Your task to perform on an android device: delete the emails in spam in the gmail app Image 0: 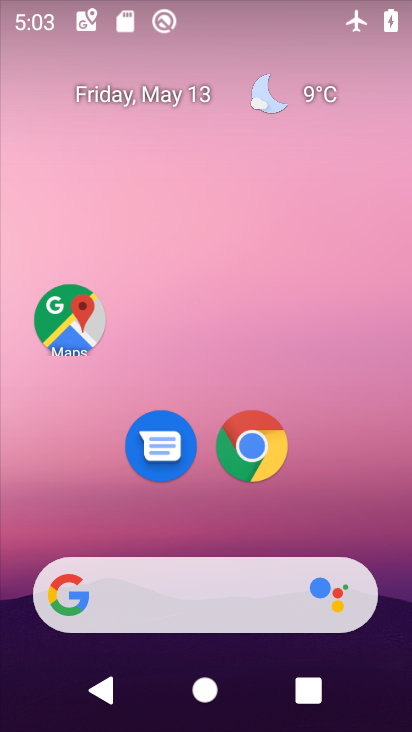
Step 0: drag from (224, 516) to (217, 55)
Your task to perform on an android device: delete the emails in spam in the gmail app Image 1: 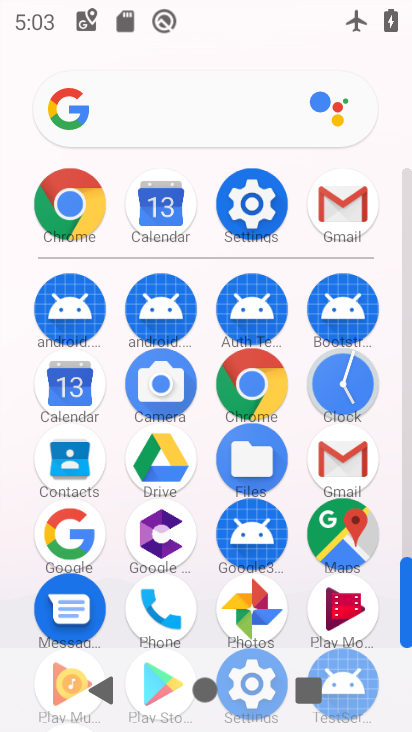
Step 1: click (331, 460)
Your task to perform on an android device: delete the emails in spam in the gmail app Image 2: 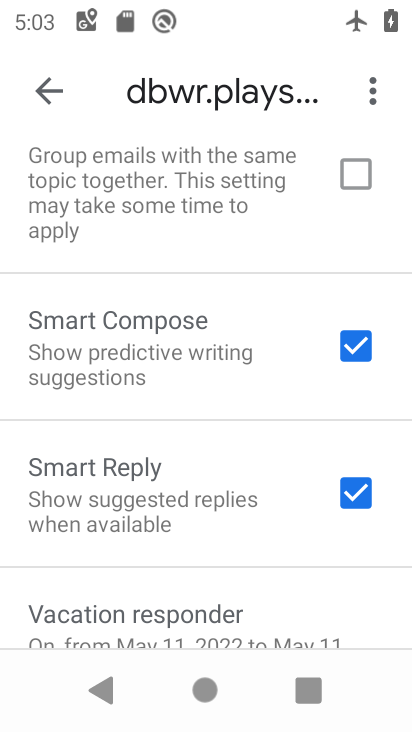
Step 2: click (47, 93)
Your task to perform on an android device: delete the emails in spam in the gmail app Image 3: 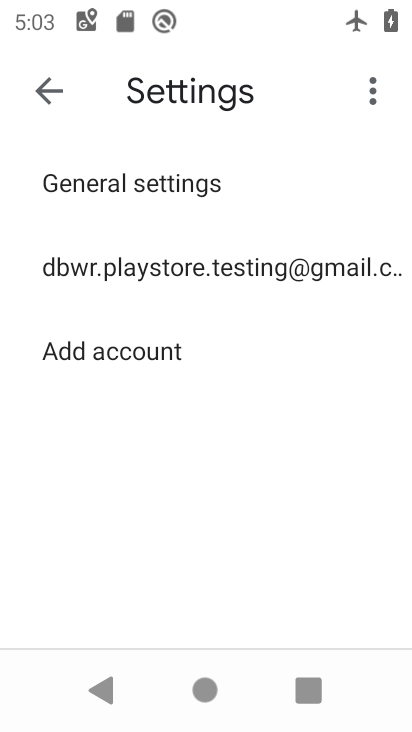
Step 3: click (47, 93)
Your task to perform on an android device: delete the emails in spam in the gmail app Image 4: 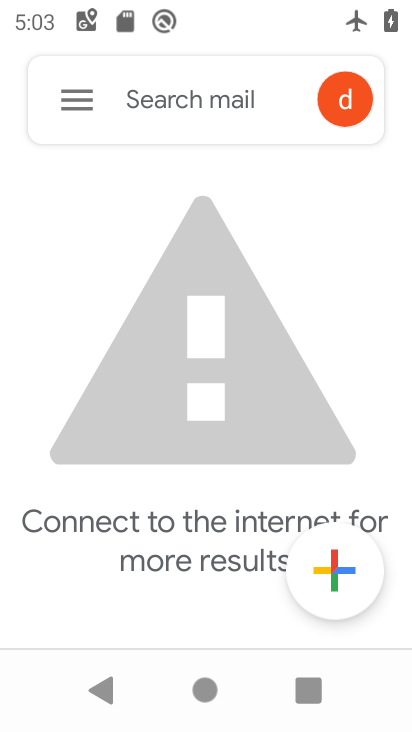
Step 4: click (47, 93)
Your task to perform on an android device: delete the emails in spam in the gmail app Image 5: 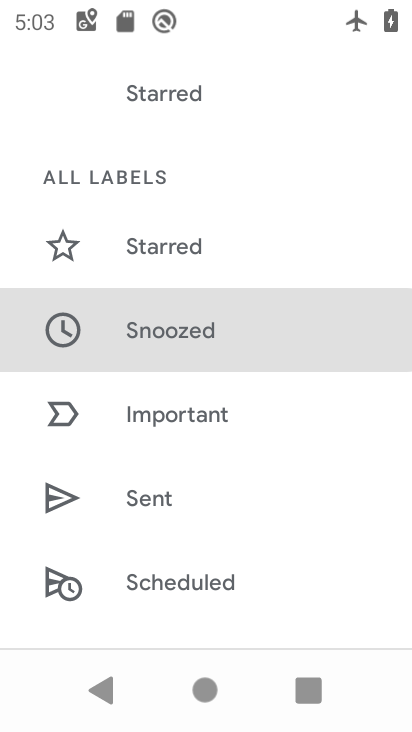
Step 5: click (148, 245)
Your task to perform on an android device: delete the emails in spam in the gmail app Image 6: 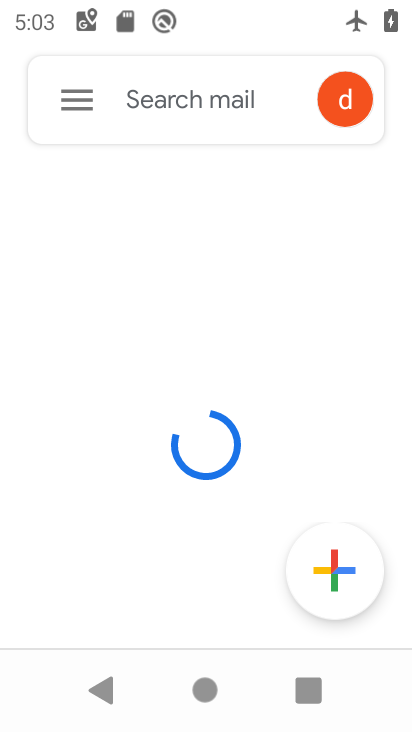
Step 6: drag from (113, 2) to (186, 418)
Your task to perform on an android device: delete the emails in spam in the gmail app Image 7: 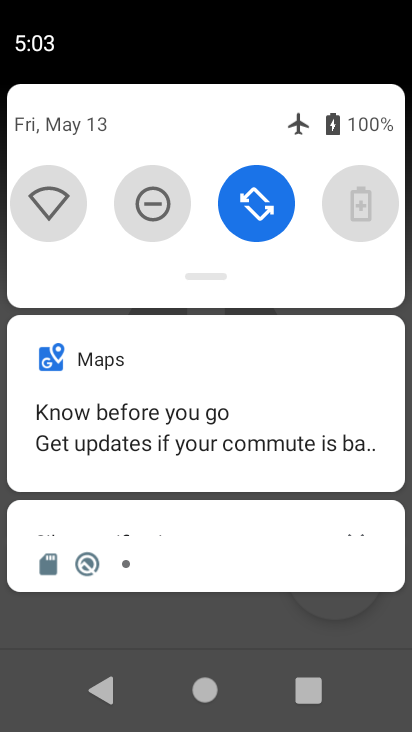
Step 7: click (59, 187)
Your task to perform on an android device: delete the emails in spam in the gmail app Image 8: 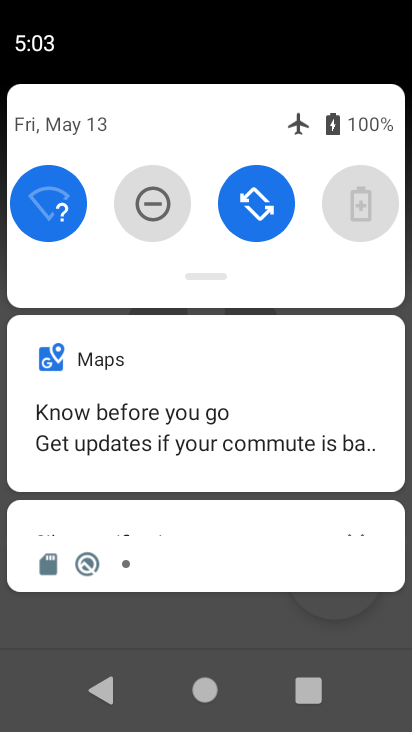
Step 8: drag from (163, 633) to (158, 258)
Your task to perform on an android device: delete the emails in spam in the gmail app Image 9: 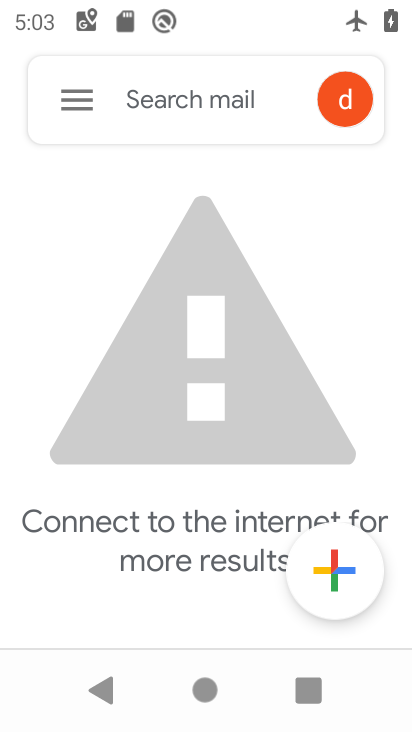
Step 9: click (63, 93)
Your task to perform on an android device: delete the emails in spam in the gmail app Image 10: 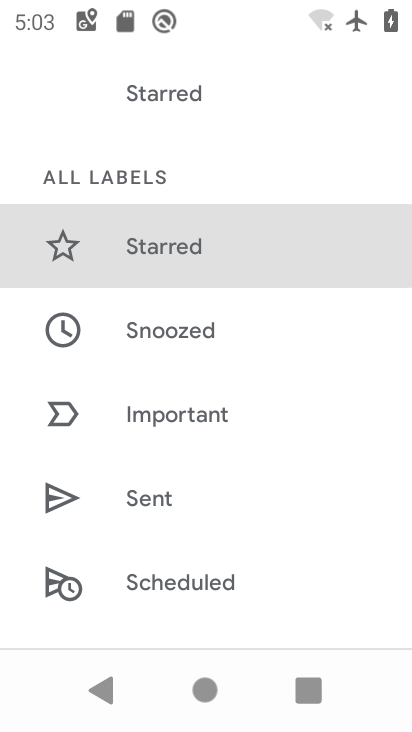
Step 10: drag from (171, 541) to (186, 193)
Your task to perform on an android device: delete the emails in spam in the gmail app Image 11: 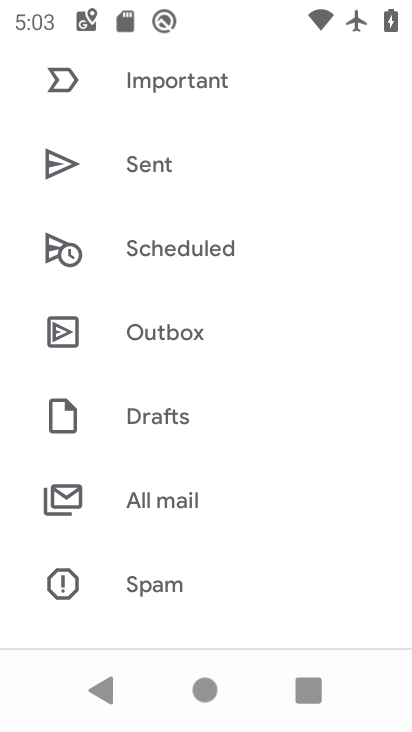
Step 11: drag from (155, 540) to (156, 426)
Your task to perform on an android device: delete the emails in spam in the gmail app Image 12: 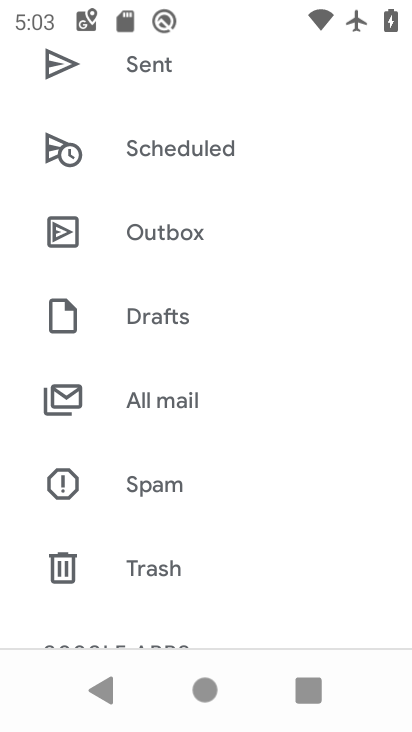
Step 12: click (139, 485)
Your task to perform on an android device: delete the emails in spam in the gmail app Image 13: 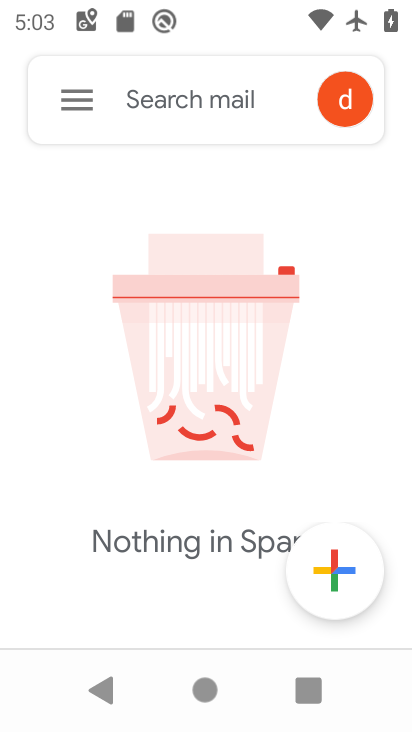
Step 13: task complete